Your task to perform on an android device: Clear all items from cart on ebay.com. Image 0: 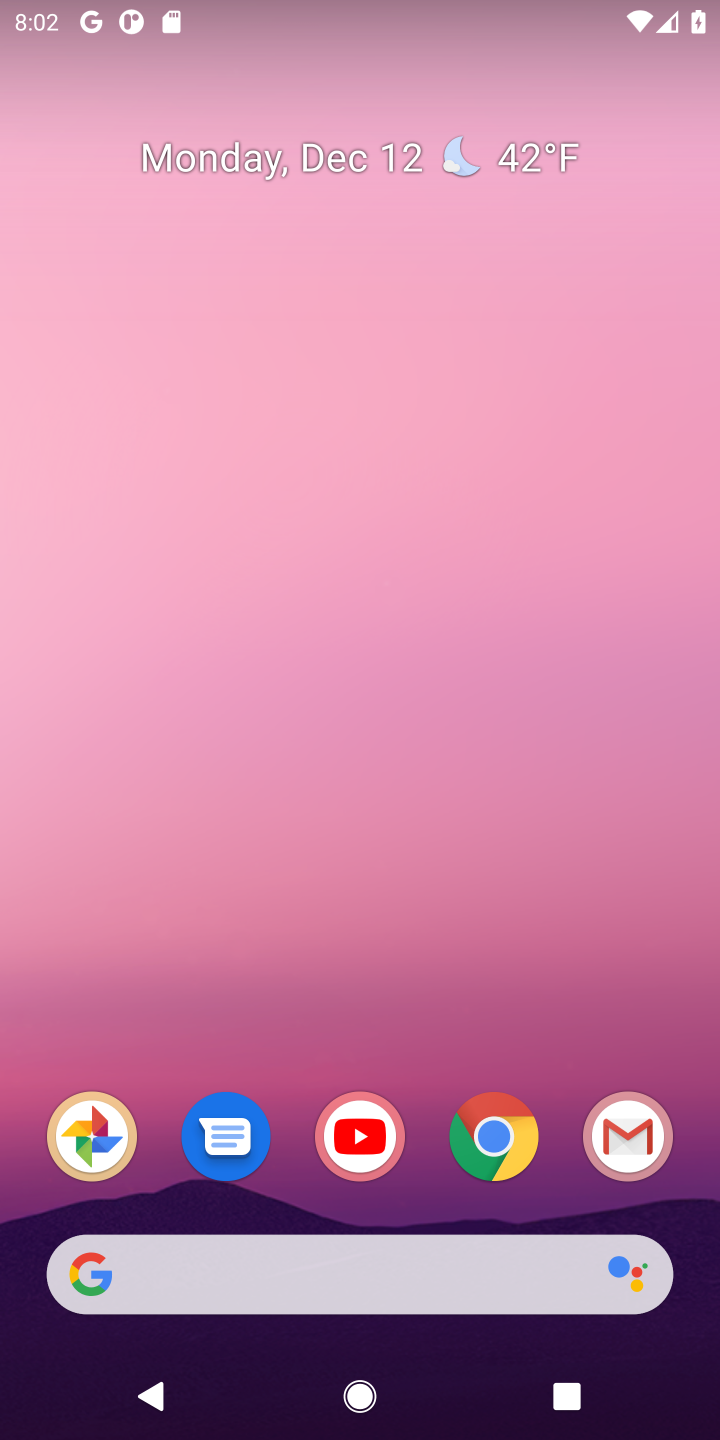
Step 0: click (489, 1146)
Your task to perform on an android device: Clear all items from cart on ebay.com. Image 1: 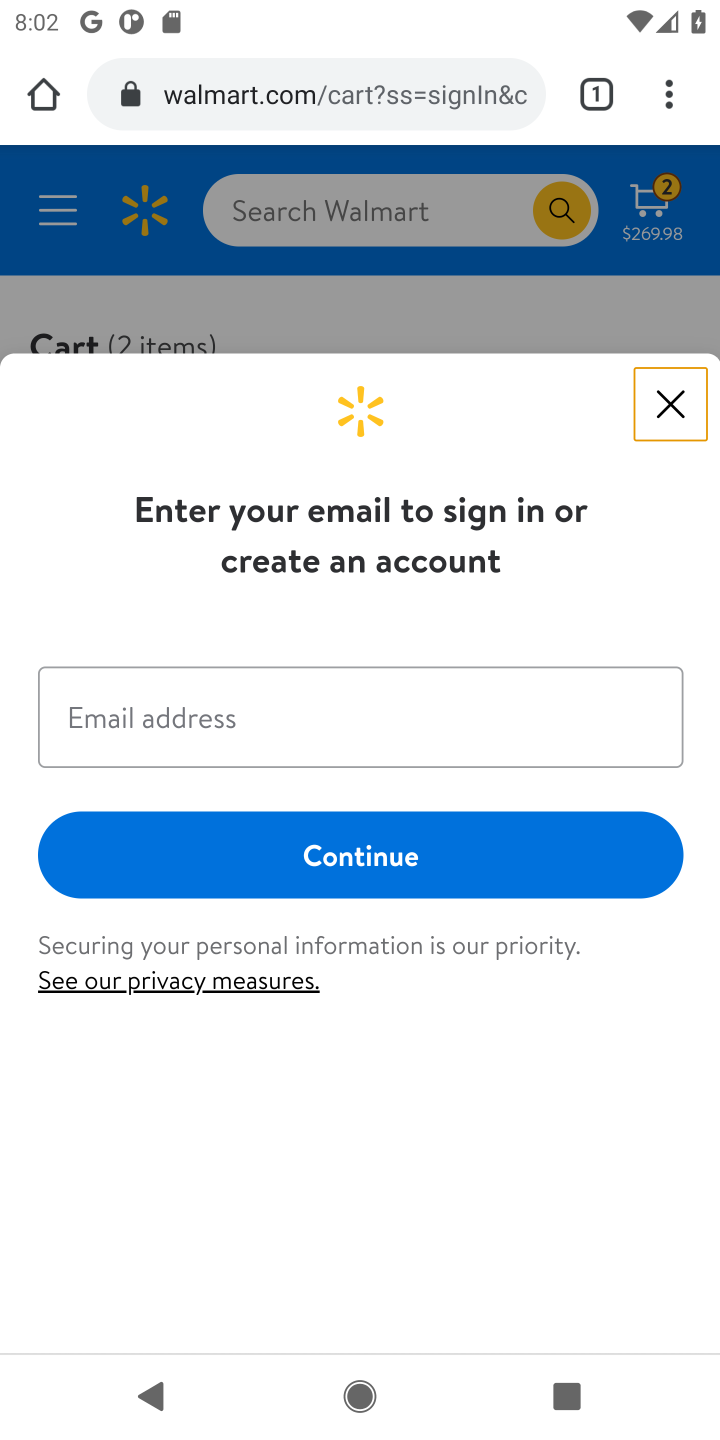
Step 1: click (246, 107)
Your task to perform on an android device: Clear all items from cart on ebay.com. Image 2: 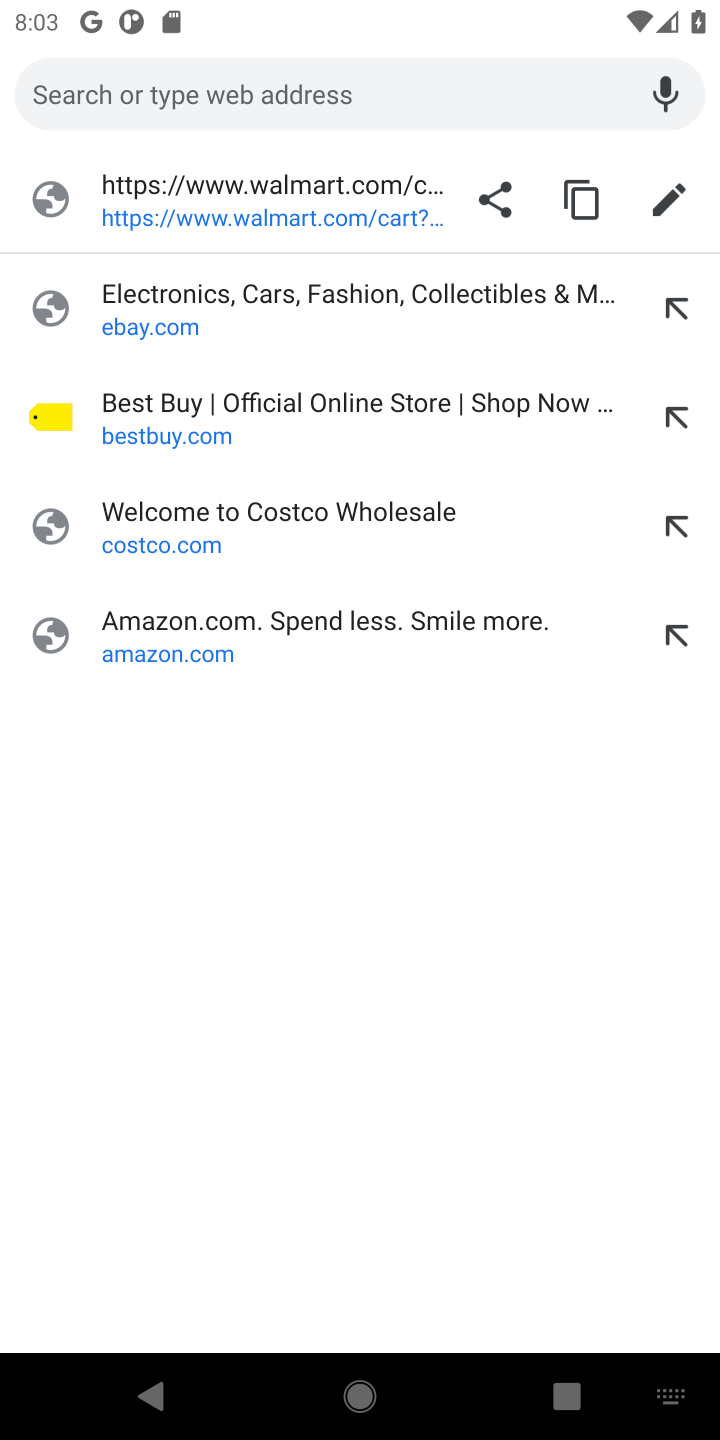
Step 2: click (123, 329)
Your task to perform on an android device: Clear all items from cart on ebay.com. Image 3: 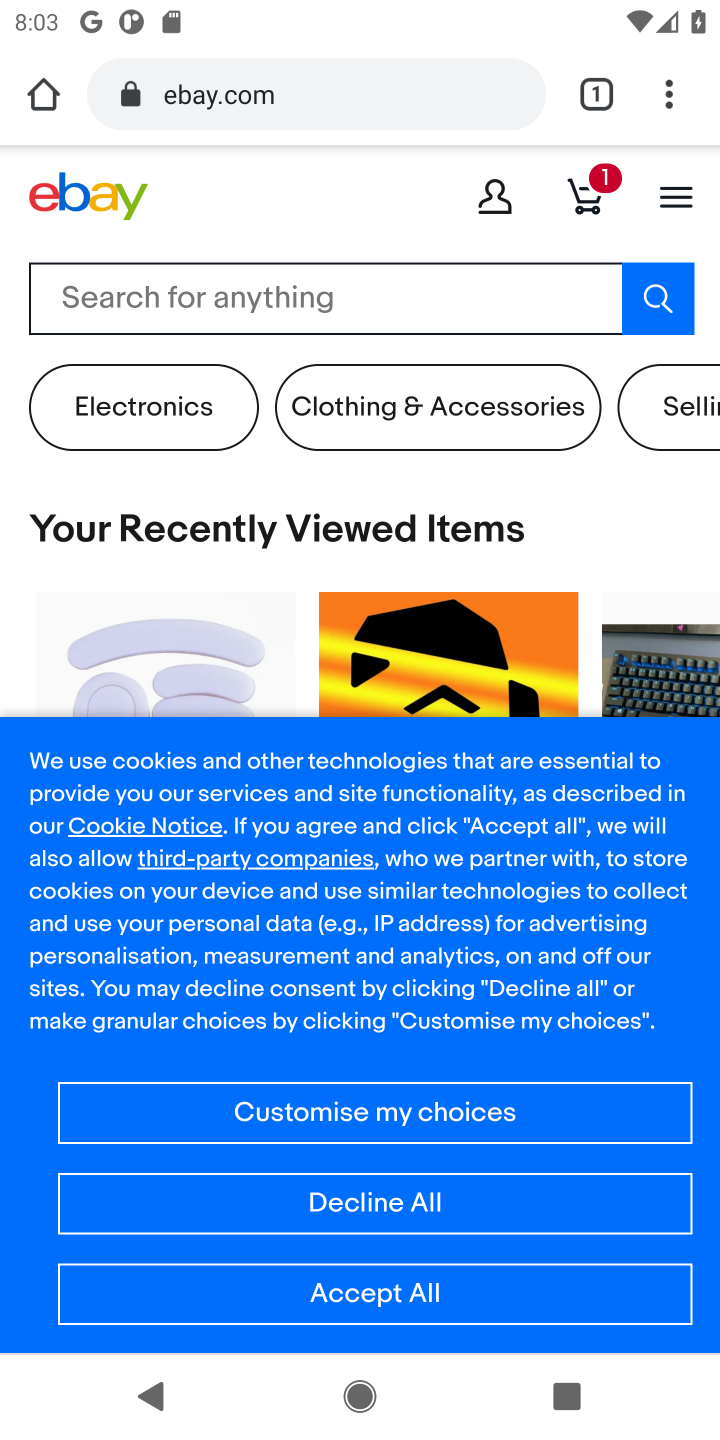
Step 3: click (588, 206)
Your task to perform on an android device: Clear all items from cart on ebay.com. Image 4: 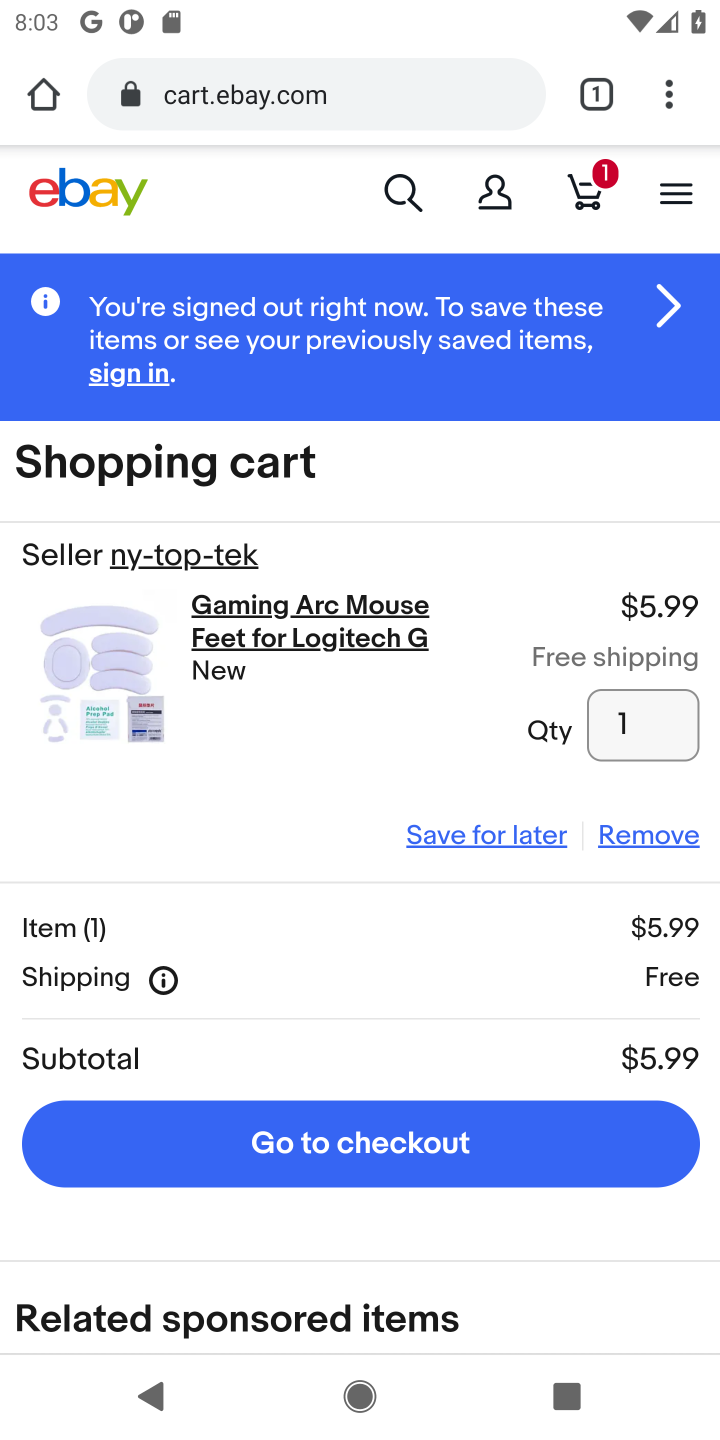
Step 4: click (659, 826)
Your task to perform on an android device: Clear all items from cart on ebay.com. Image 5: 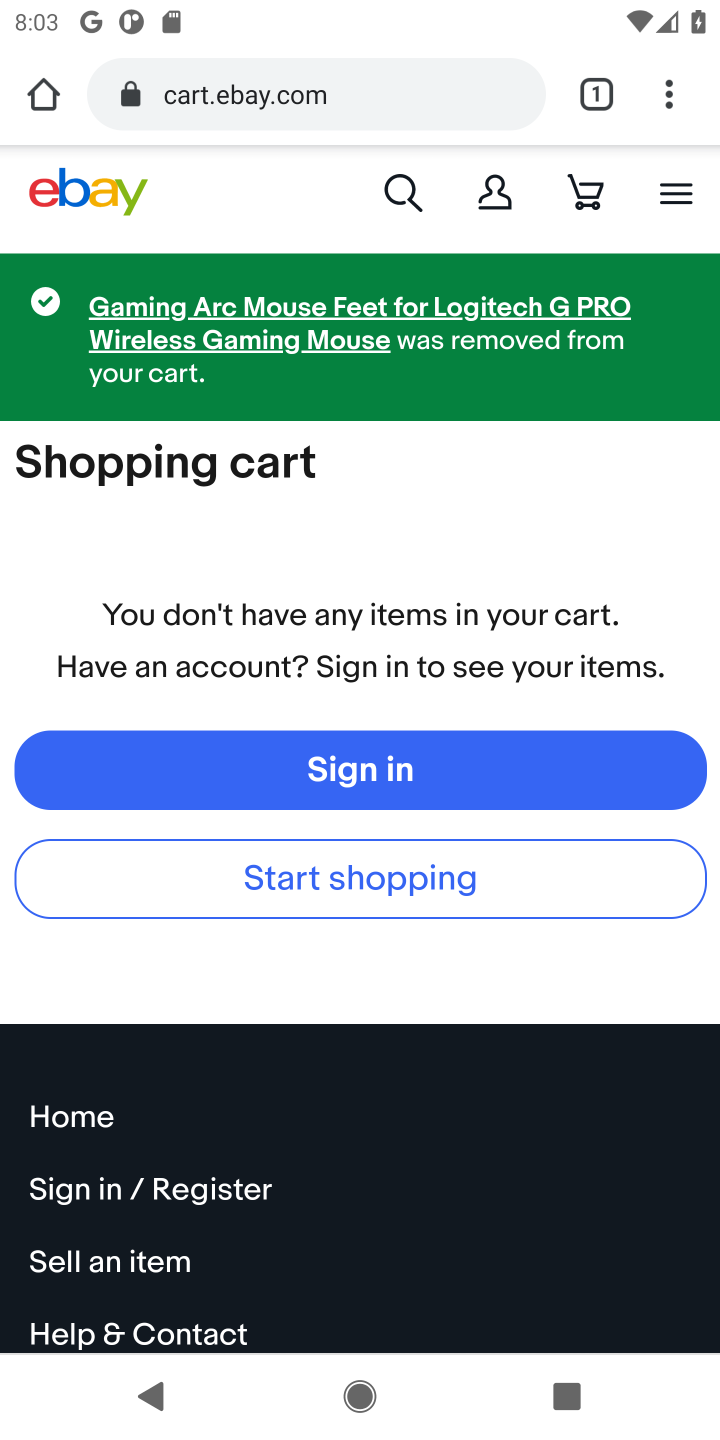
Step 5: task complete